Your task to perform on an android device: Open settings on Google Maps Image 0: 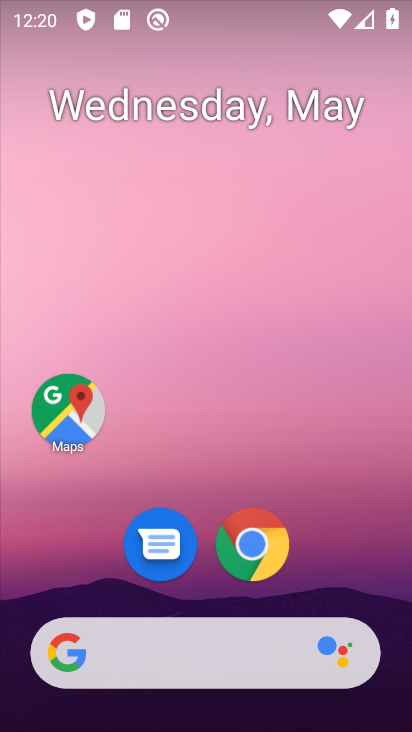
Step 0: drag from (327, 556) to (286, 80)
Your task to perform on an android device: Open settings on Google Maps Image 1: 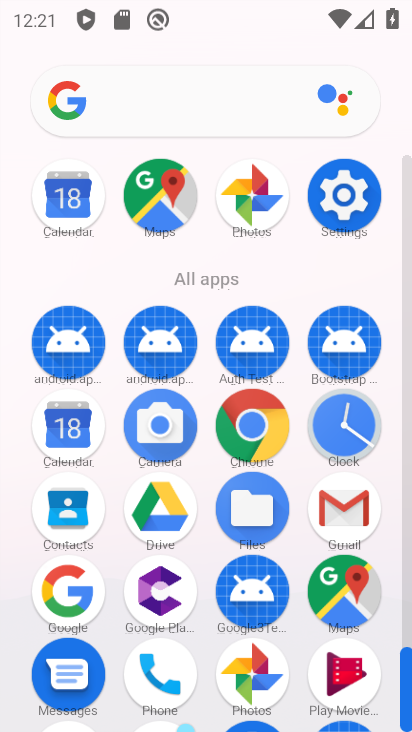
Step 1: click (165, 197)
Your task to perform on an android device: Open settings on Google Maps Image 2: 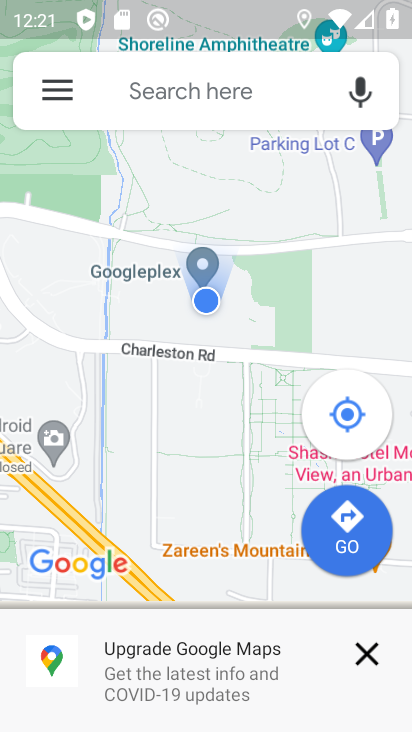
Step 2: task complete